Your task to perform on an android device: change notifications settings Image 0: 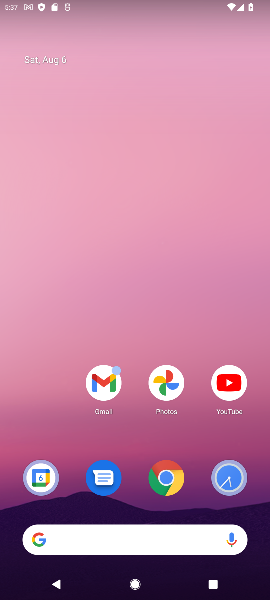
Step 0: press home button
Your task to perform on an android device: change notifications settings Image 1: 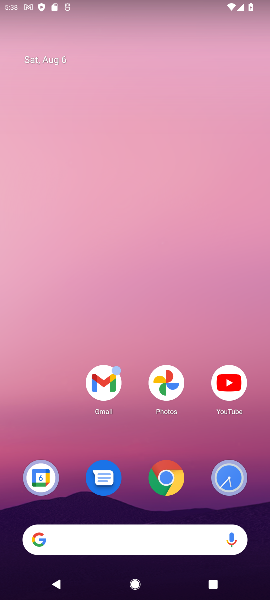
Step 1: drag from (143, 519) to (146, 100)
Your task to perform on an android device: change notifications settings Image 2: 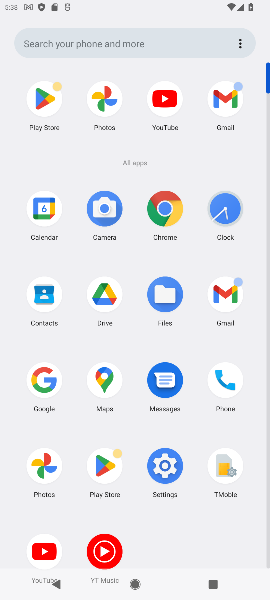
Step 2: click (160, 470)
Your task to perform on an android device: change notifications settings Image 3: 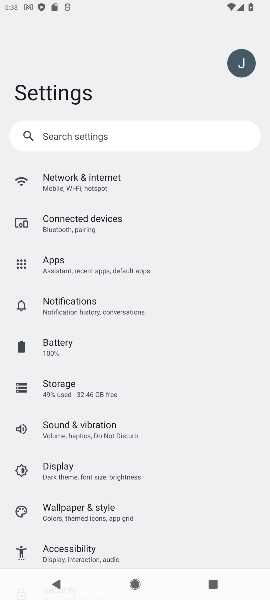
Step 3: click (93, 305)
Your task to perform on an android device: change notifications settings Image 4: 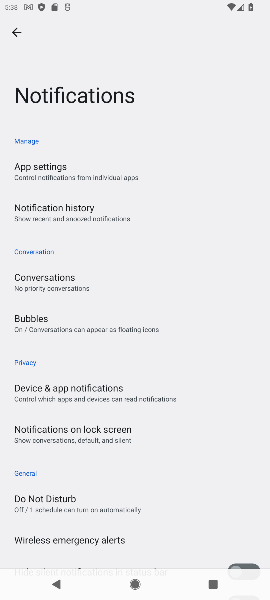
Step 4: task complete